Your task to perform on an android device: turn off priority inbox in the gmail app Image 0: 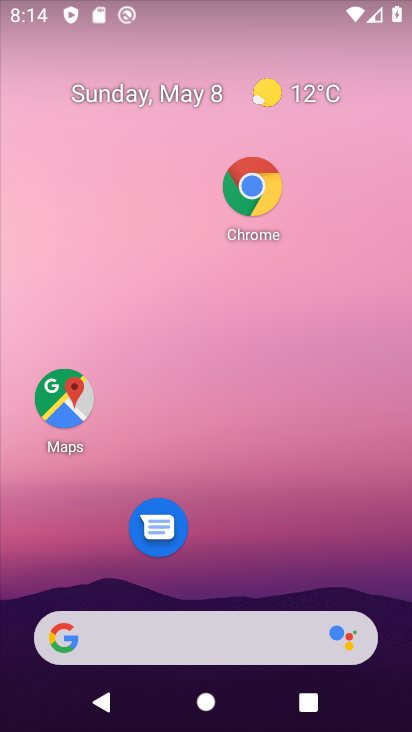
Step 0: drag from (282, 560) to (344, 344)
Your task to perform on an android device: turn off priority inbox in the gmail app Image 1: 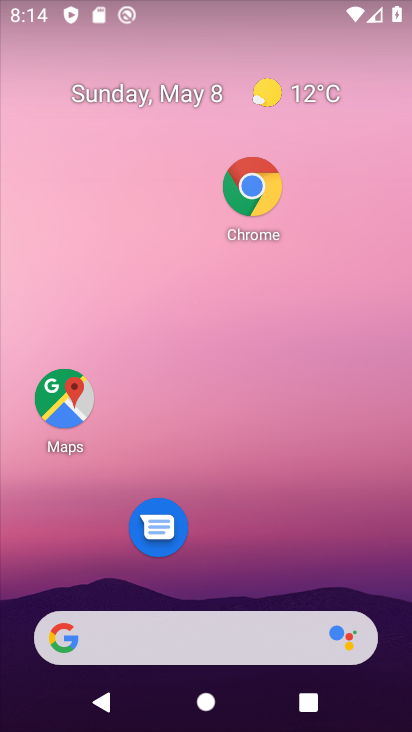
Step 1: drag from (308, 282) to (308, 159)
Your task to perform on an android device: turn off priority inbox in the gmail app Image 2: 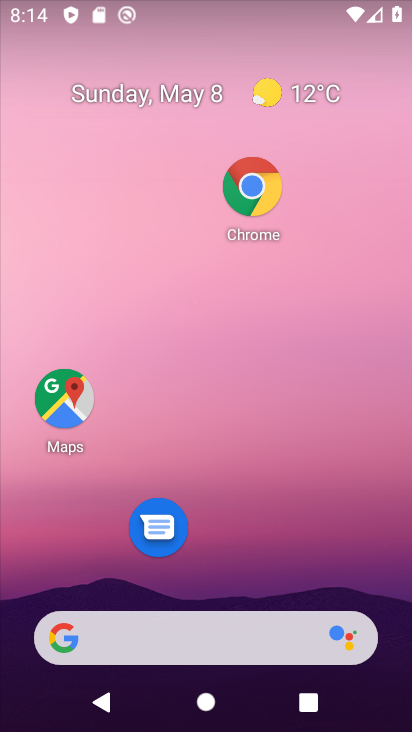
Step 2: drag from (261, 594) to (319, 297)
Your task to perform on an android device: turn off priority inbox in the gmail app Image 3: 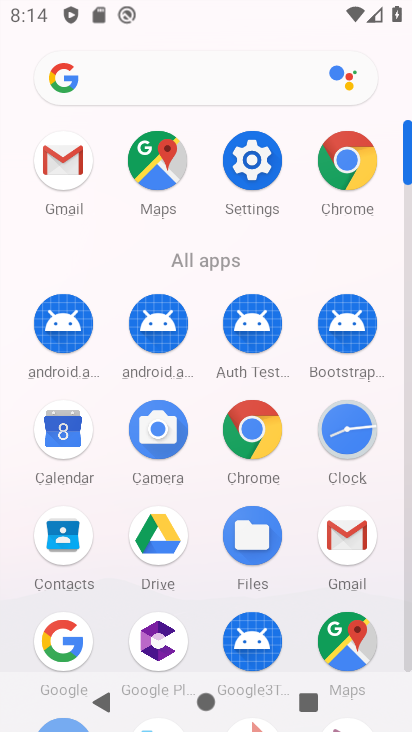
Step 3: click (337, 527)
Your task to perform on an android device: turn off priority inbox in the gmail app Image 4: 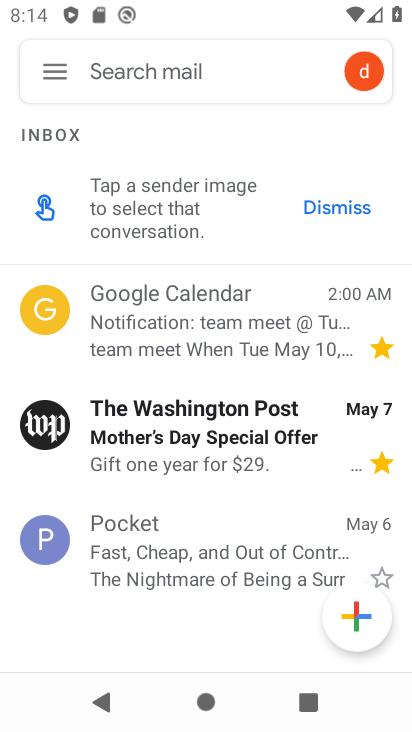
Step 4: click (51, 66)
Your task to perform on an android device: turn off priority inbox in the gmail app Image 5: 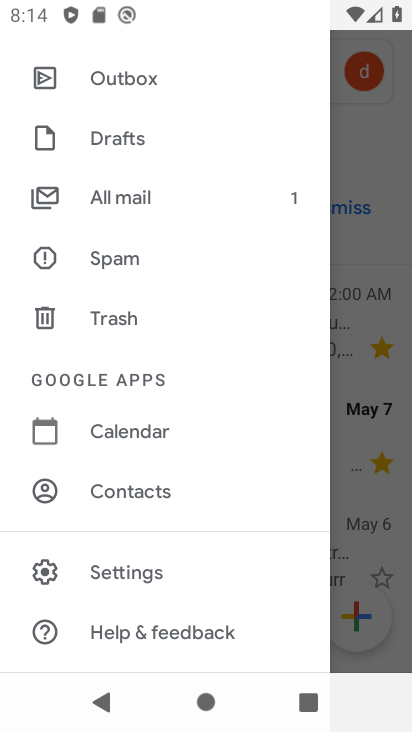
Step 5: click (163, 562)
Your task to perform on an android device: turn off priority inbox in the gmail app Image 6: 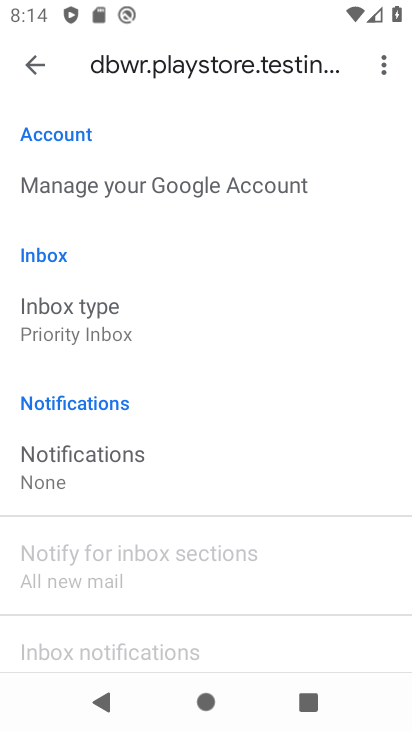
Step 6: click (114, 320)
Your task to perform on an android device: turn off priority inbox in the gmail app Image 7: 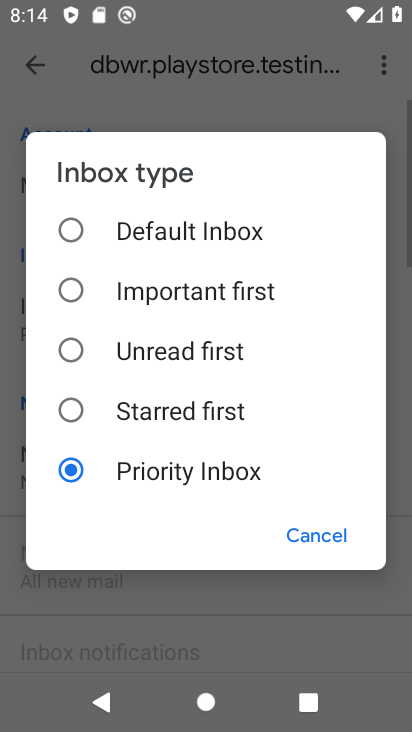
Step 7: click (125, 230)
Your task to perform on an android device: turn off priority inbox in the gmail app Image 8: 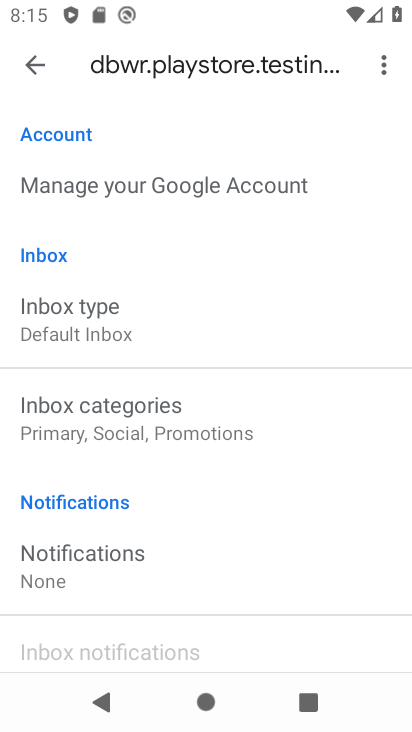
Step 8: task complete